Your task to perform on an android device: Show me popular videos on Youtube Image 0: 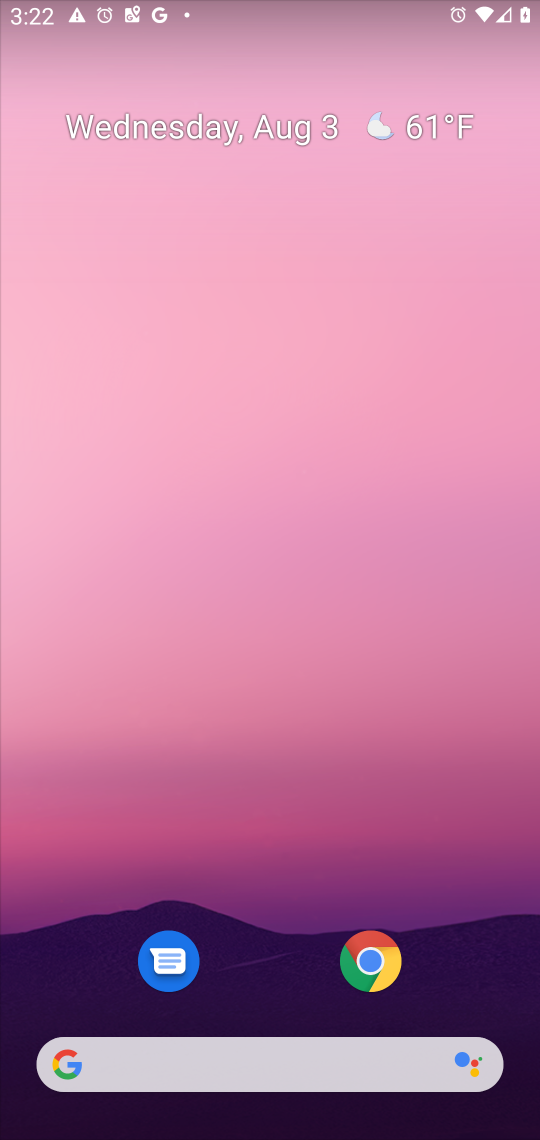
Step 0: drag from (268, 947) to (219, 83)
Your task to perform on an android device: Show me popular videos on Youtube Image 1: 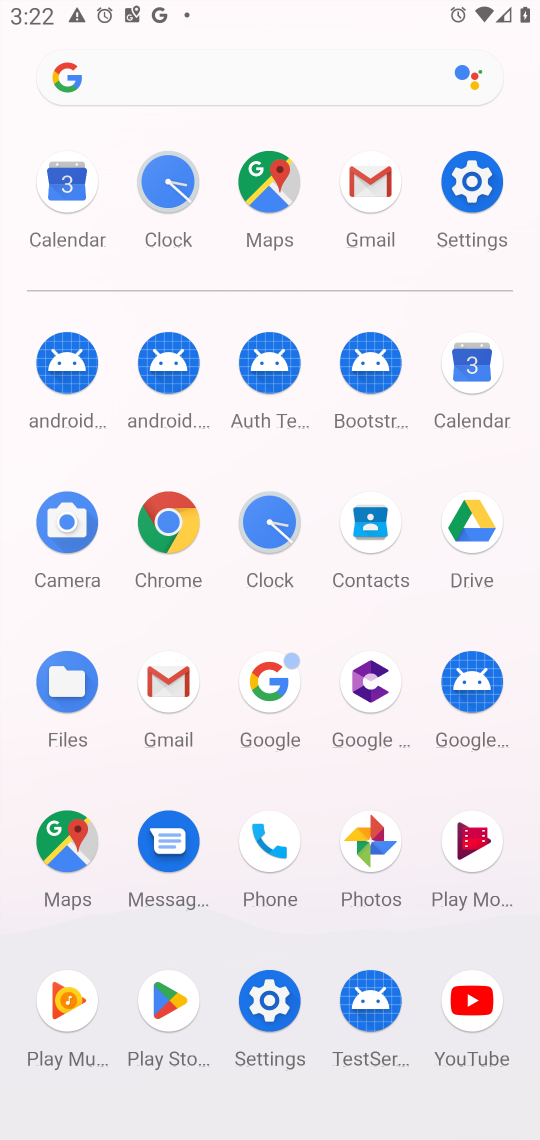
Step 1: click (469, 1004)
Your task to perform on an android device: Show me popular videos on Youtube Image 2: 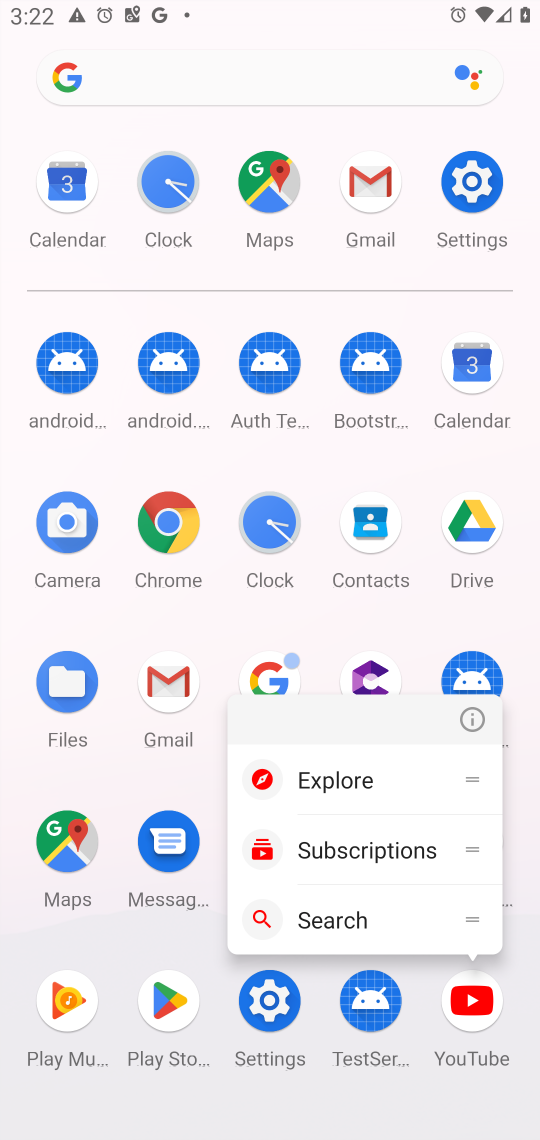
Step 2: click (469, 1004)
Your task to perform on an android device: Show me popular videos on Youtube Image 3: 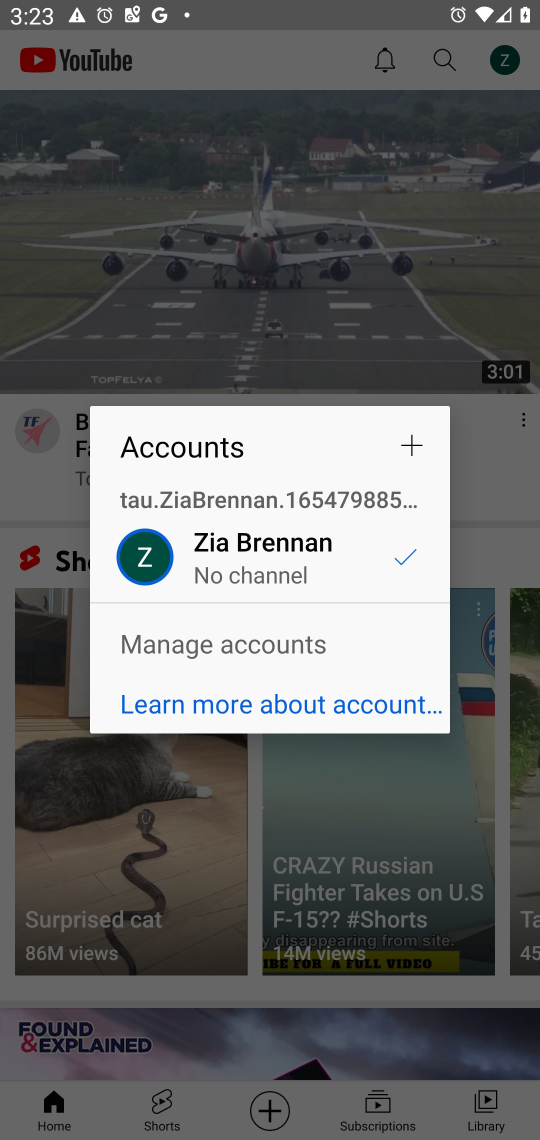
Step 3: click (52, 1097)
Your task to perform on an android device: Show me popular videos on Youtube Image 4: 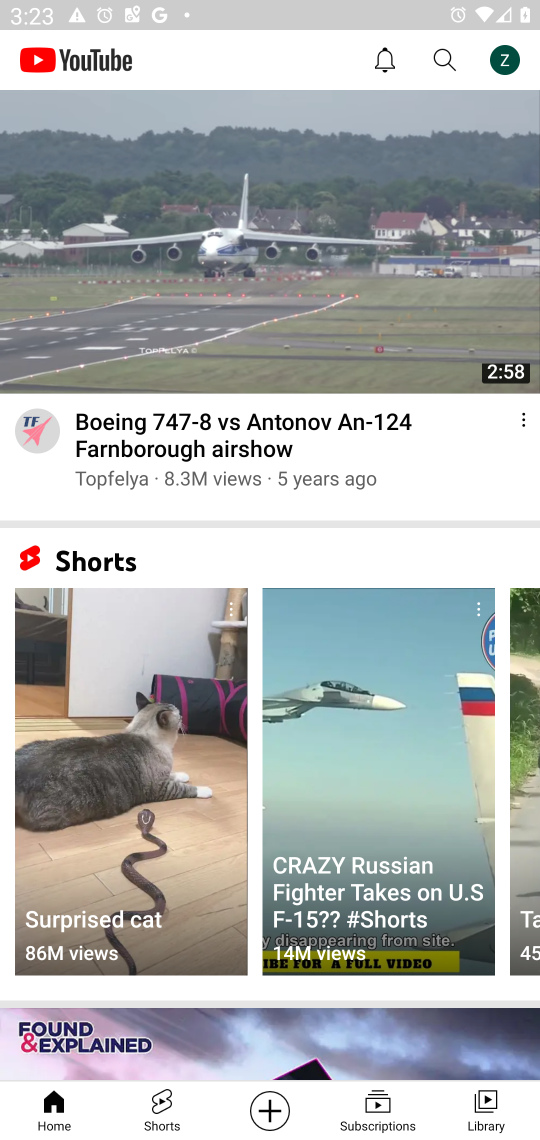
Step 4: click (54, 1104)
Your task to perform on an android device: Show me popular videos on Youtube Image 5: 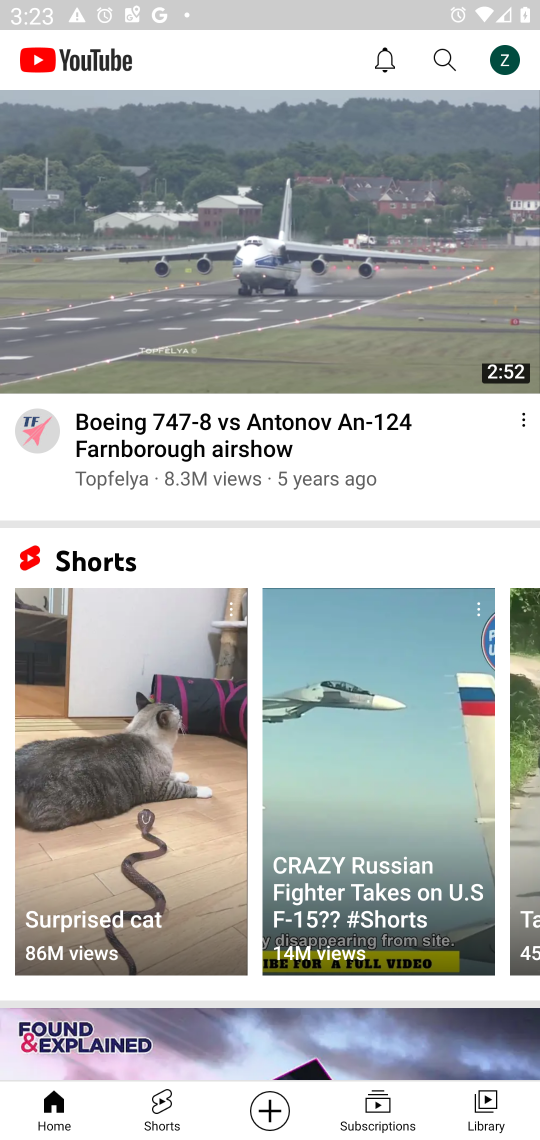
Step 5: task complete